Your task to perform on an android device: Open Yahoo.com Image 0: 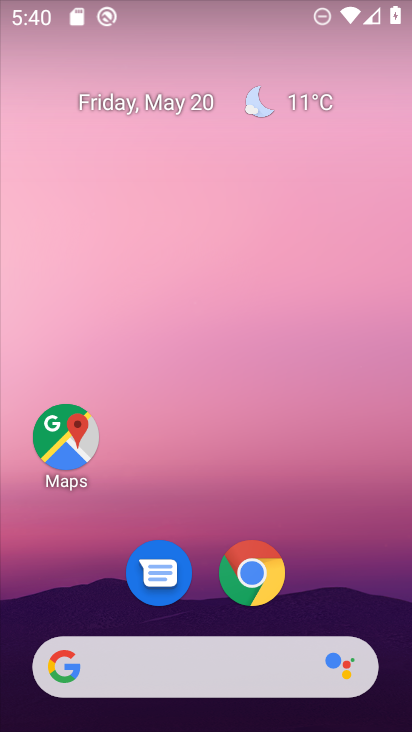
Step 0: click (286, 572)
Your task to perform on an android device: Open Yahoo.com Image 1: 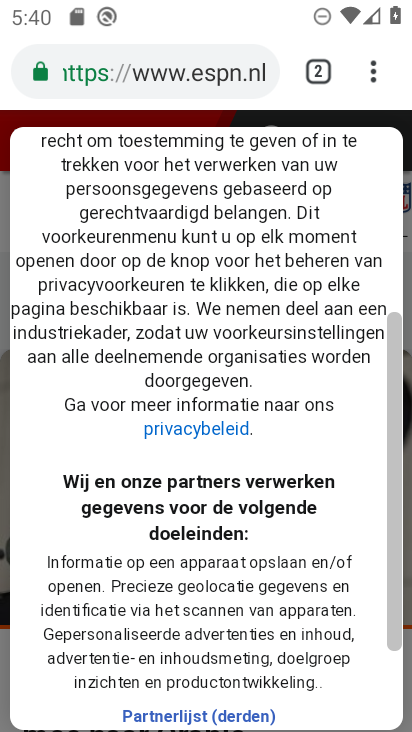
Step 1: click (381, 78)
Your task to perform on an android device: Open Yahoo.com Image 2: 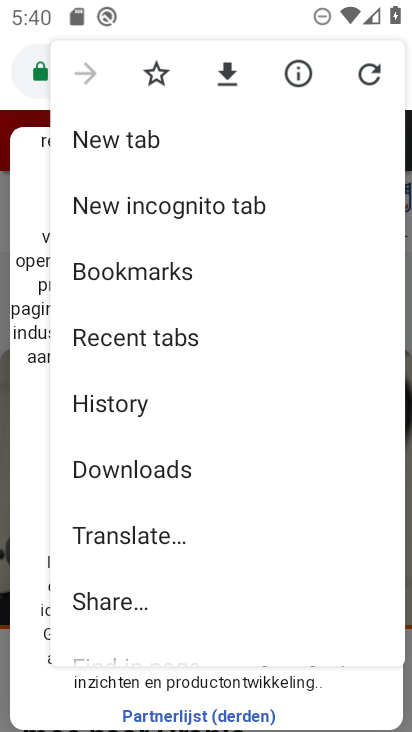
Step 2: click (75, 137)
Your task to perform on an android device: Open Yahoo.com Image 3: 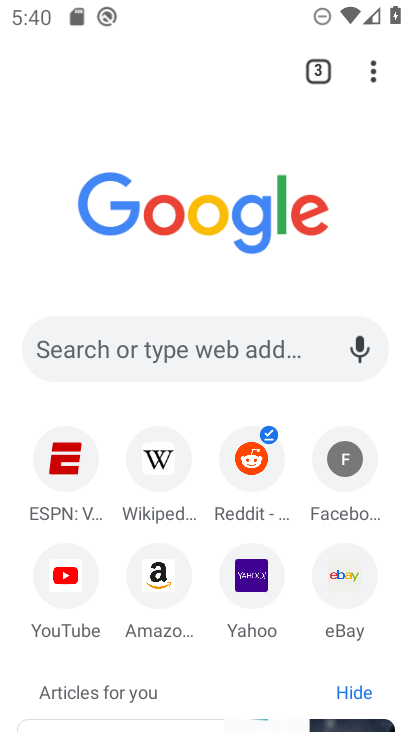
Step 3: click (249, 584)
Your task to perform on an android device: Open Yahoo.com Image 4: 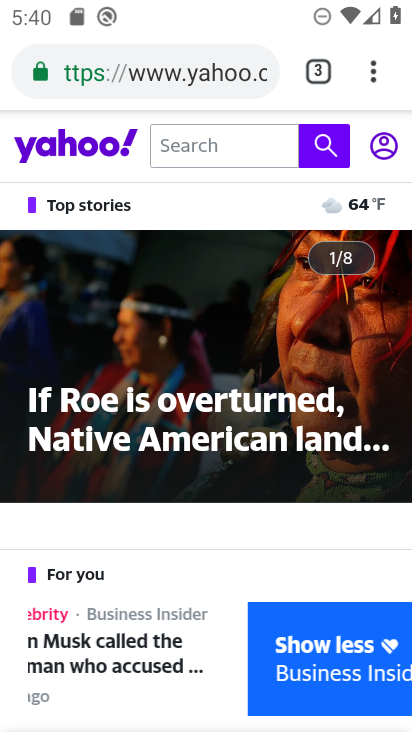
Step 4: task complete